Your task to perform on an android device: Open sound settings Image 0: 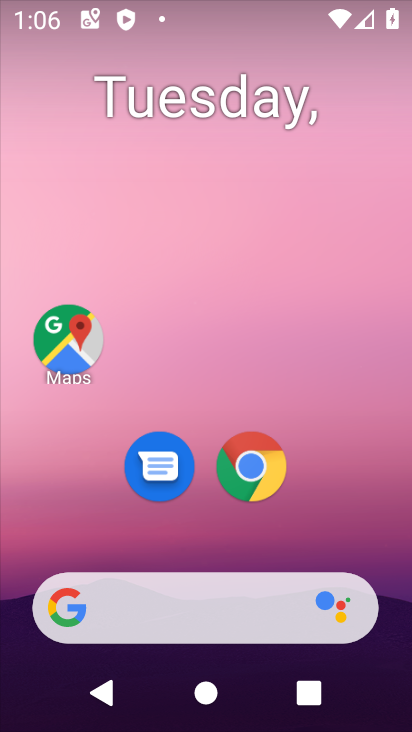
Step 0: drag from (338, 522) to (356, 18)
Your task to perform on an android device: Open sound settings Image 1: 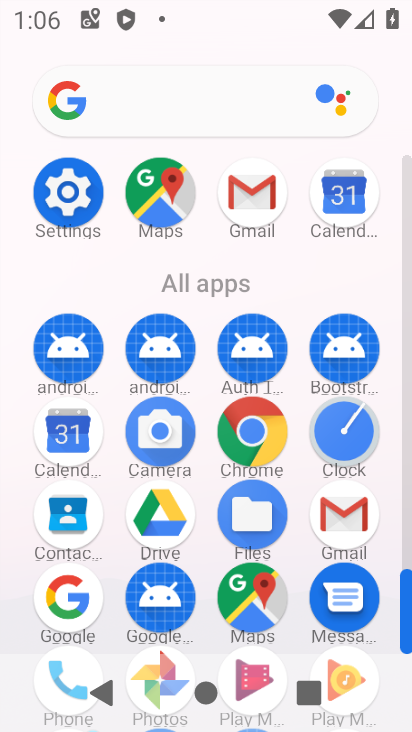
Step 1: click (83, 202)
Your task to perform on an android device: Open sound settings Image 2: 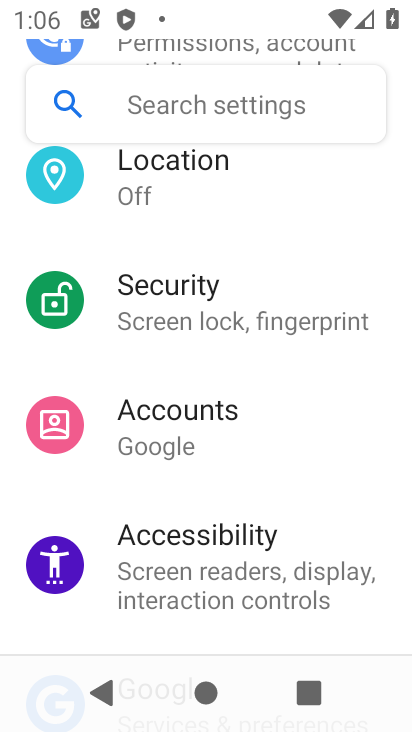
Step 2: drag from (202, 290) to (199, 729)
Your task to perform on an android device: Open sound settings Image 3: 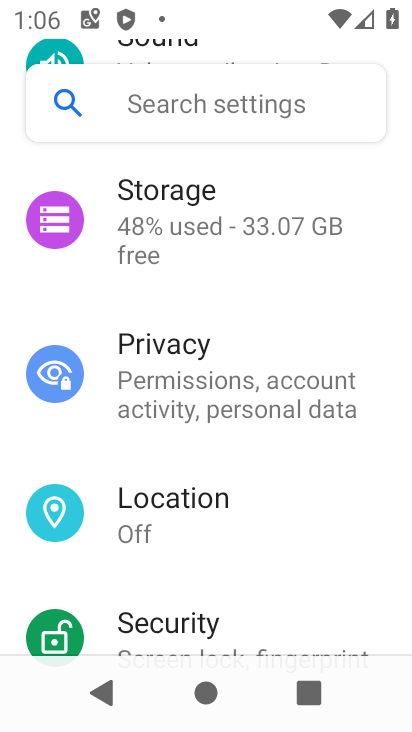
Step 3: drag from (242, 363) to (313, 645)
Your task to perform on an android device: Open sound settings Image 4: 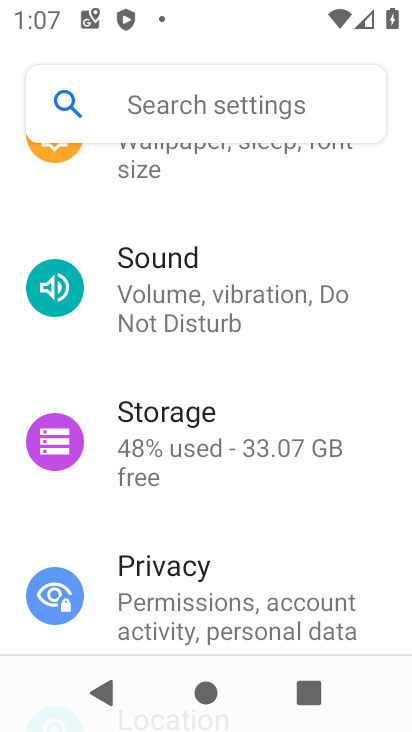
Step 4: click (173, 304)
Your task to perform on an android device: Open sound settings Image 5: 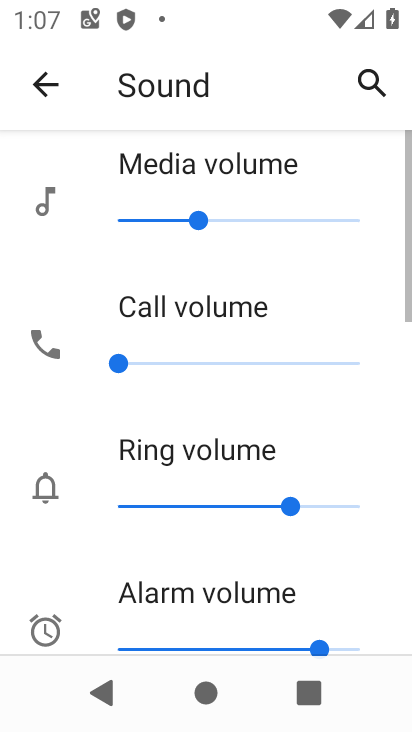
Step 5: task complete